Your task to perform on an android device: show emergency info Image 0: 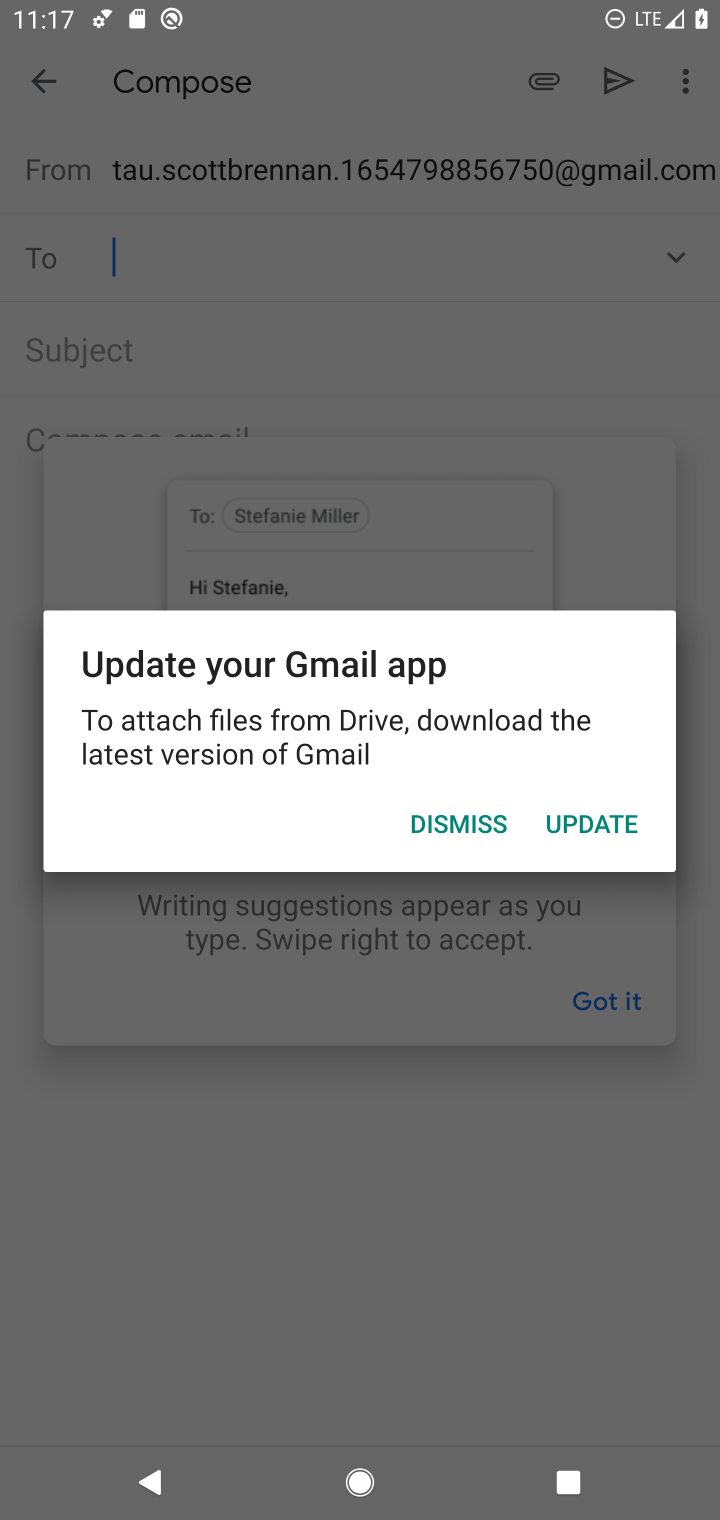
Step 0: press home button
Your task to perform on an android device: show emergency info Image 1: 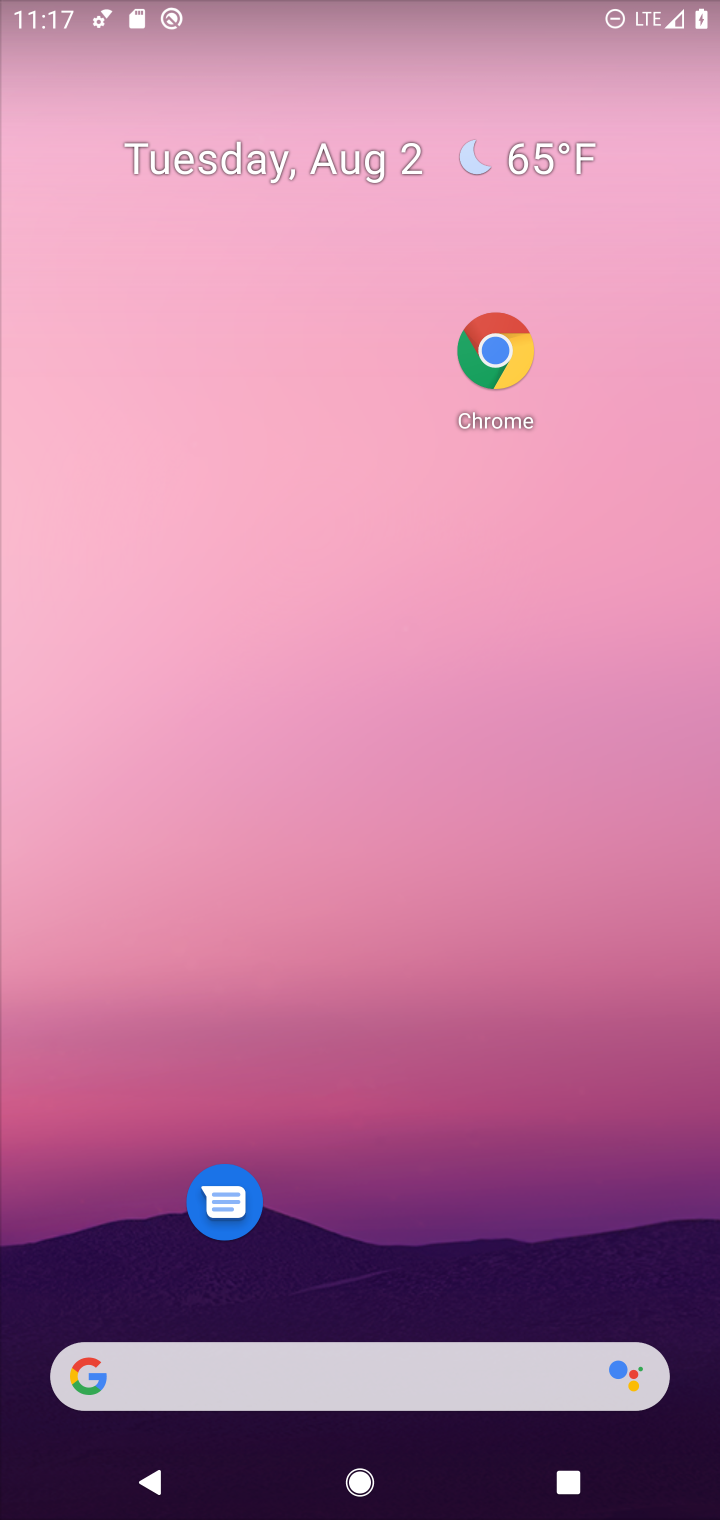
Step 1: drag from (433, 1316) to (466, 30)
Your task to perform on an android device: show emergency info Image 2: 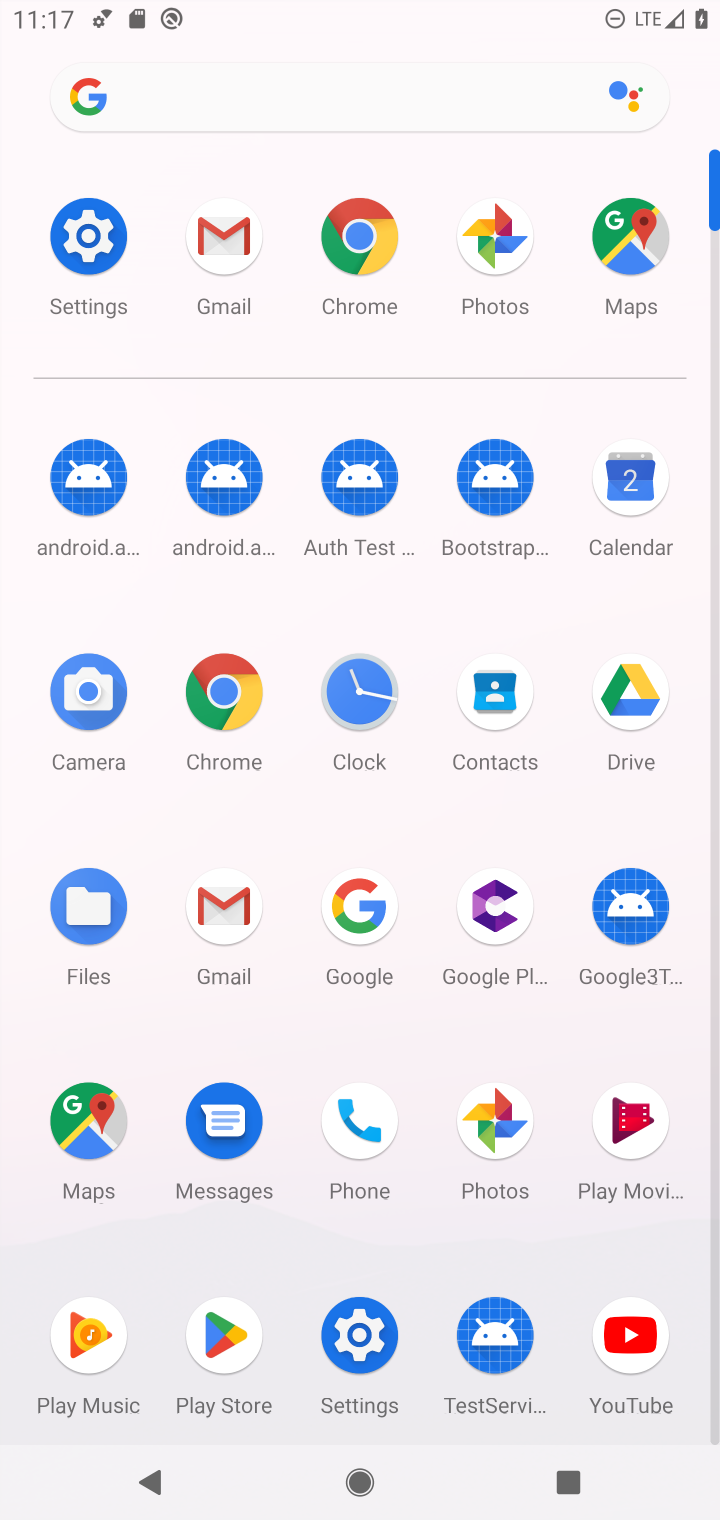
Step 2: click (92, 242)
Your task to perform on an android device: show emergency info Image 3: 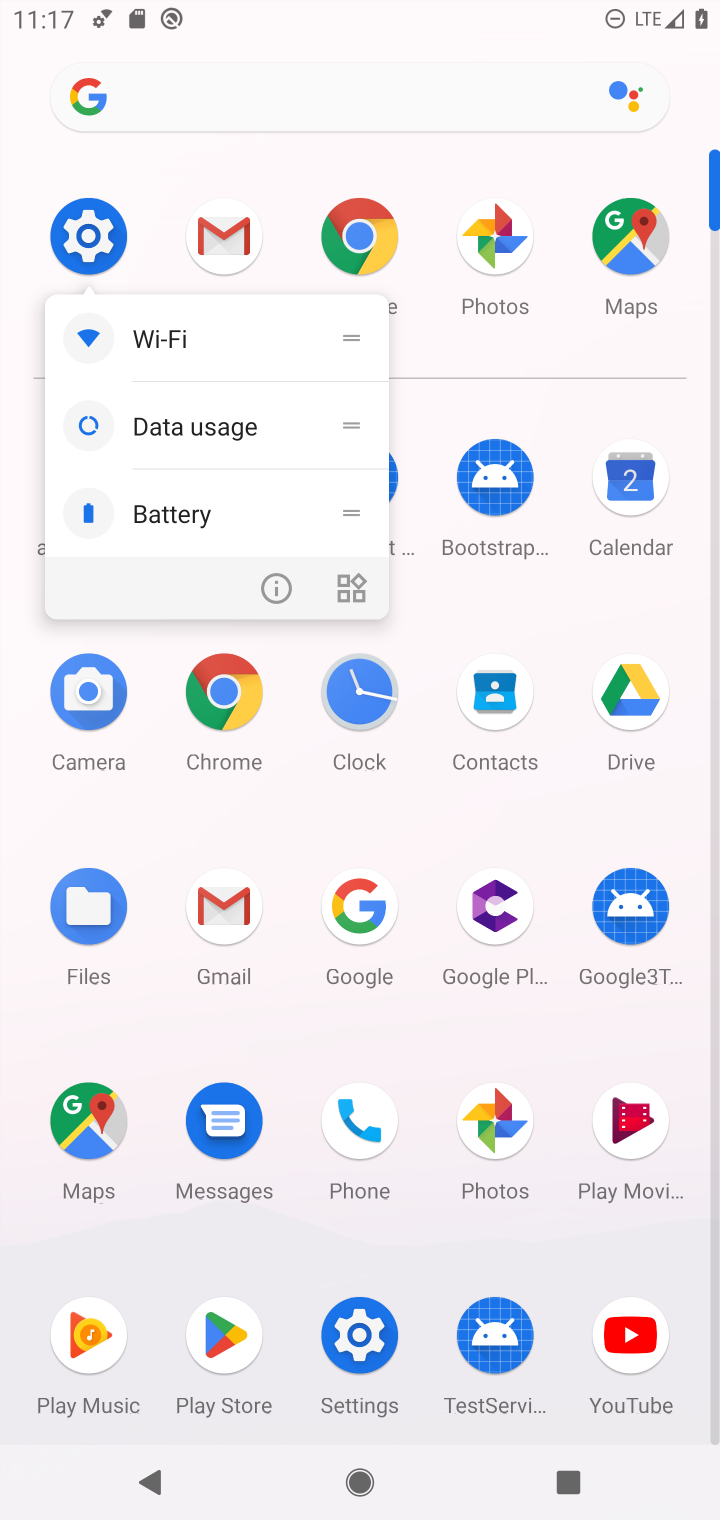
Step 3: click (81, 224)
Your task to perform on an android device: show emergency info Image 4: 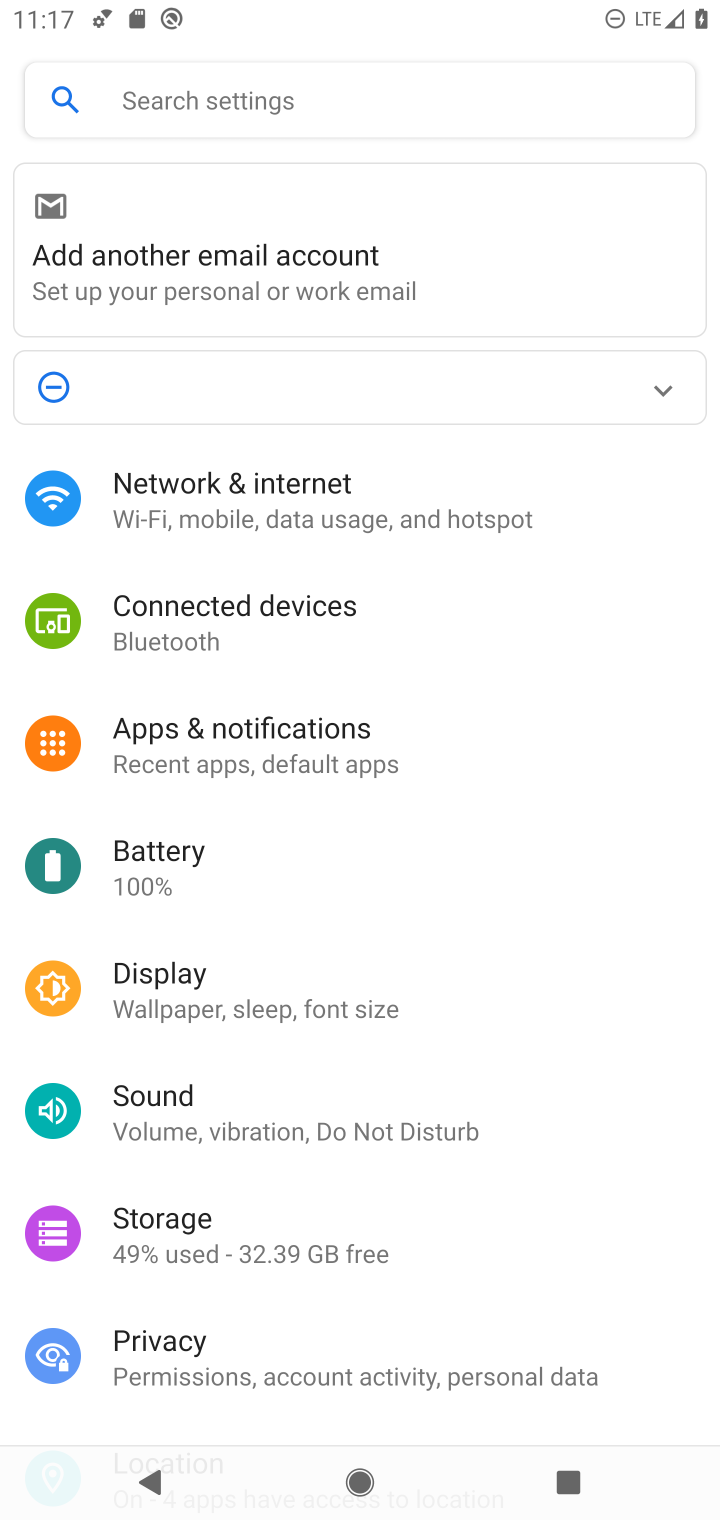
Step 4: drag from (628, 1288) to (656, 406)
Your task to perform on an android device: show emergency info Image 5: 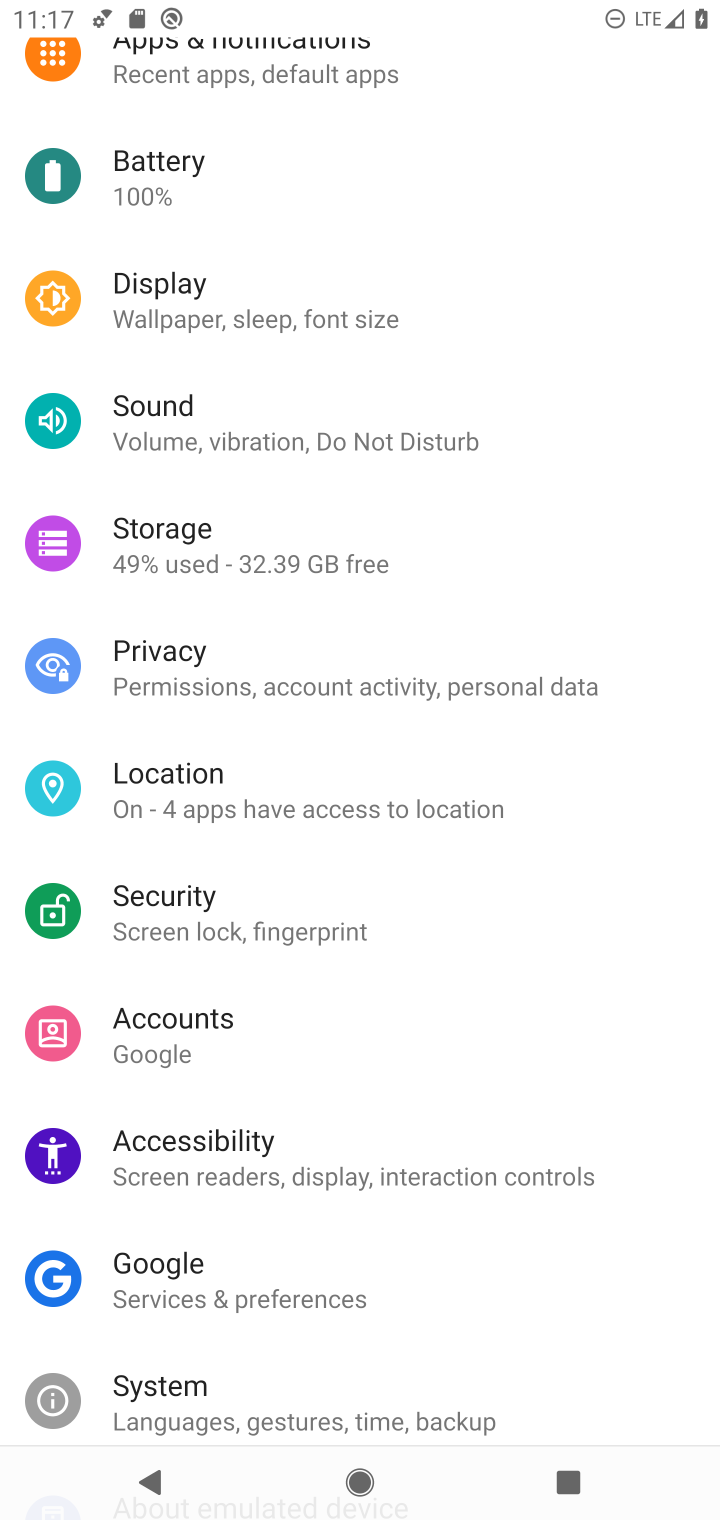
Step 5: drag from (614, 1273) to (636, 608)
Your task to perform on an android device: show emergency info Image 6: 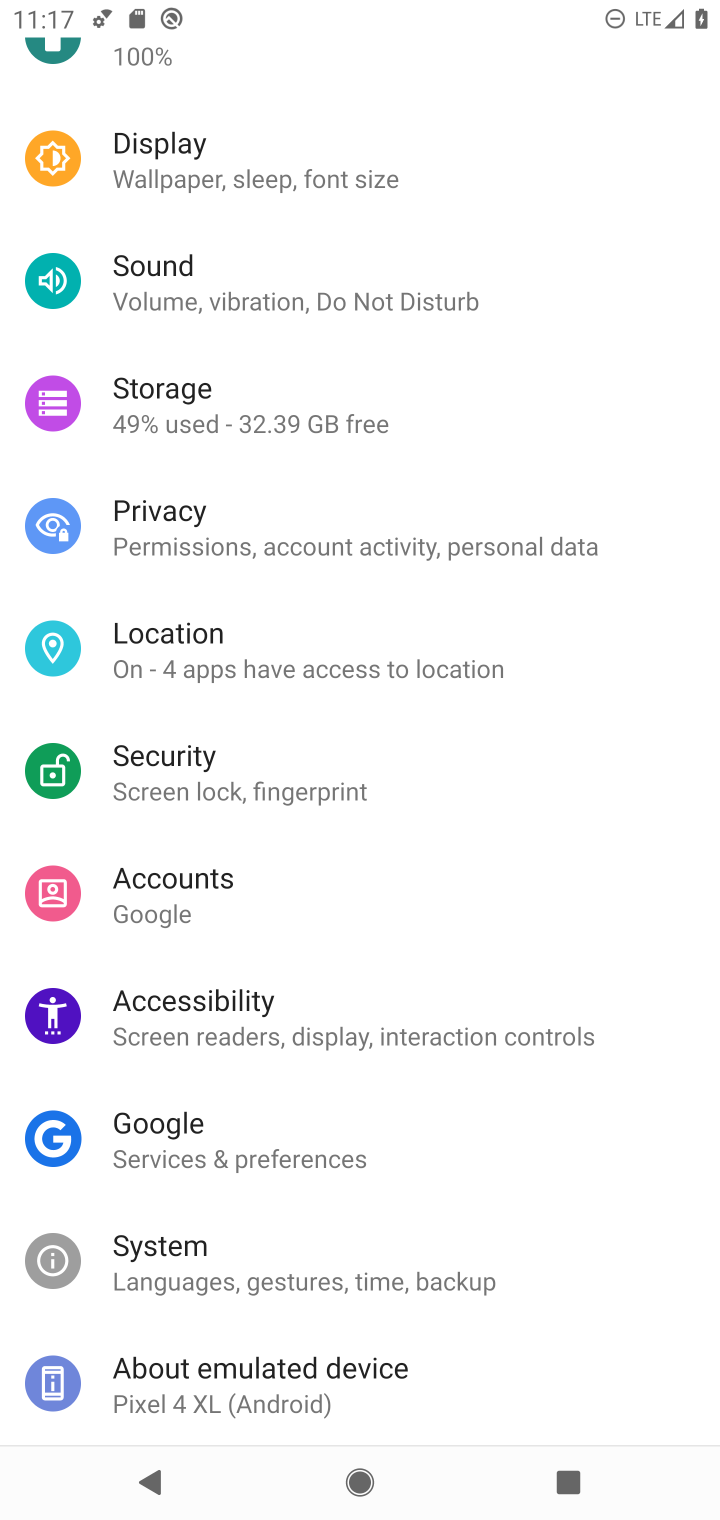
Step 6: click (247, 1405)
Your task to perform on an android device: show emergency info Image 7: 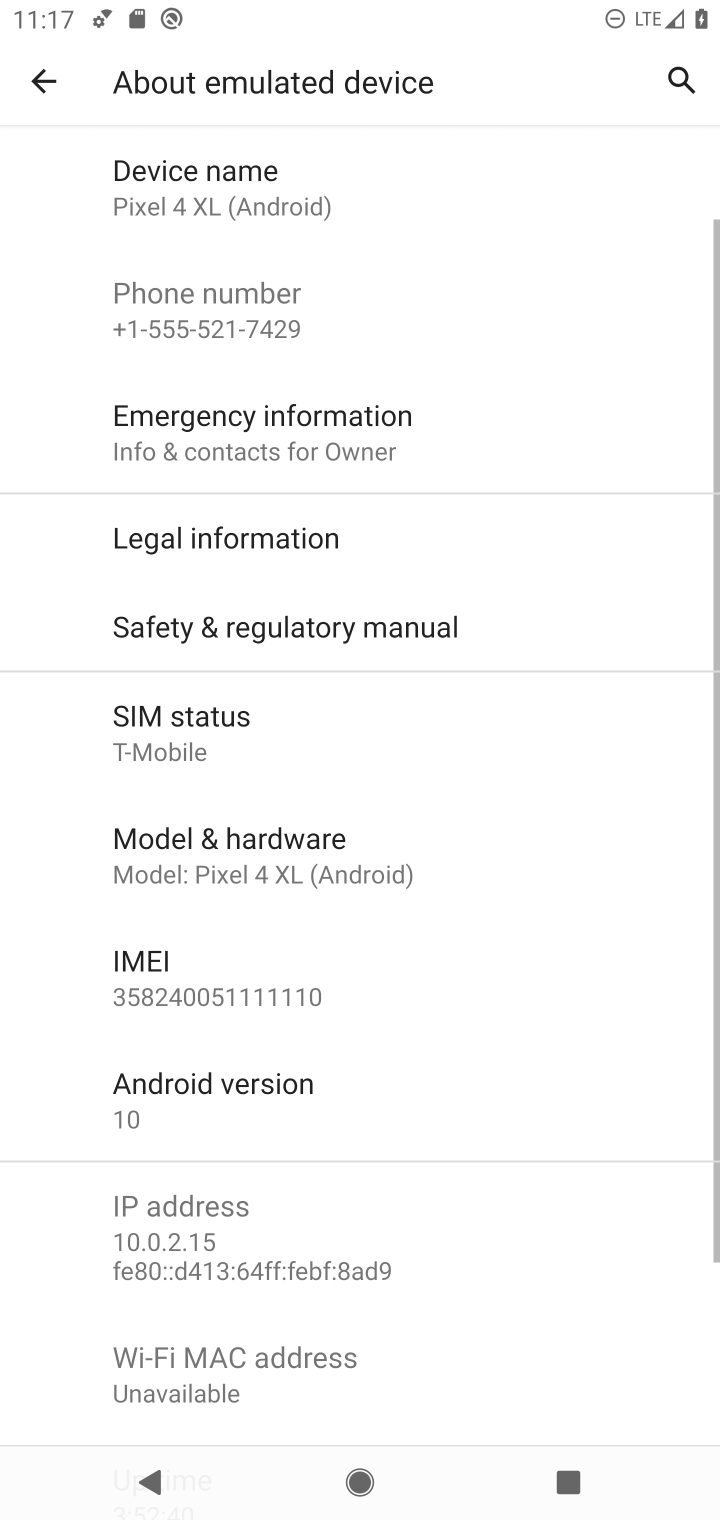
Step 7: click (221, 440)
Your task to perform on an android device: show emergency info Image 8: 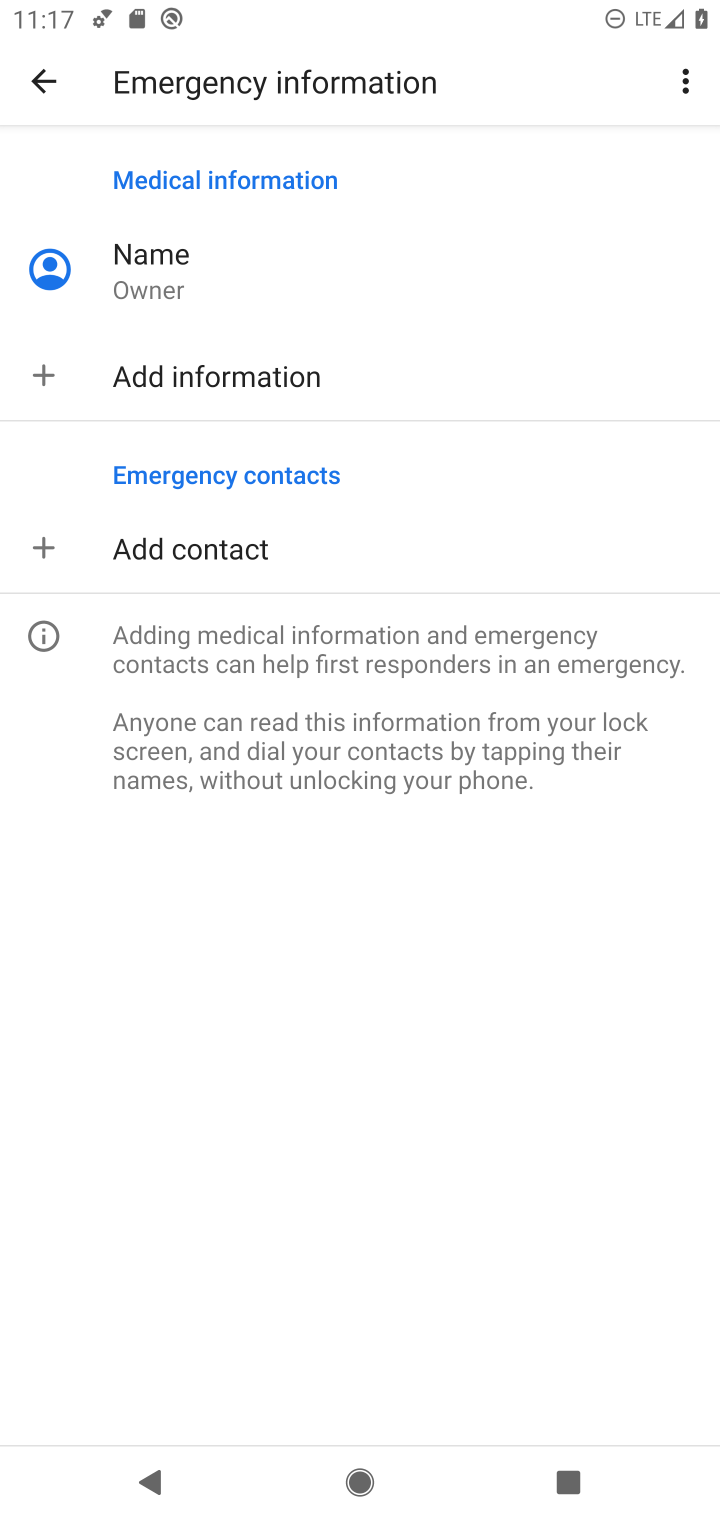
Step 8: task complete